Your task to perform on an android device: What's the price of the Vizio TV? Image 0: 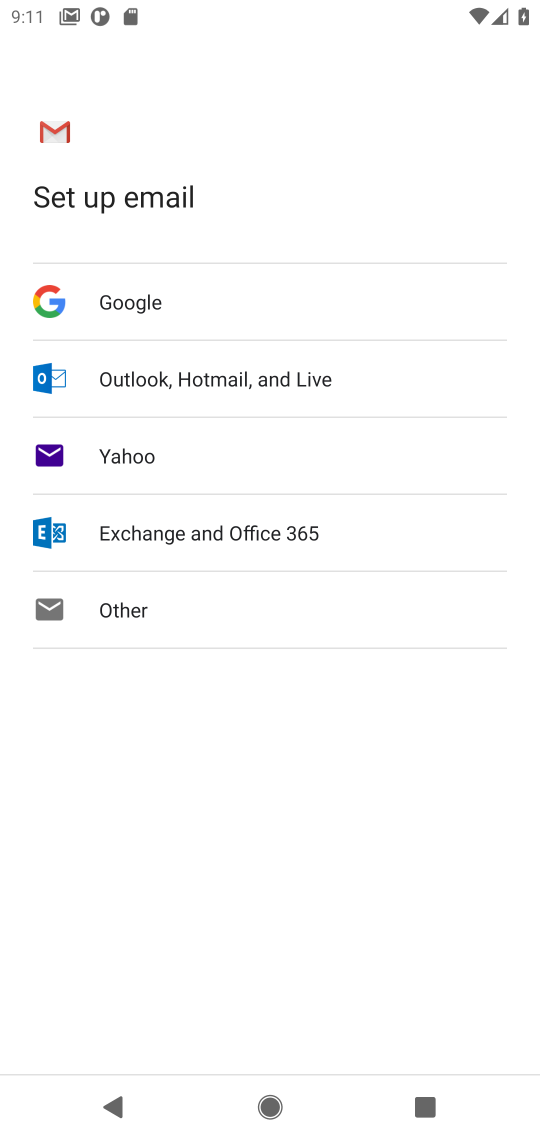
Step 0: press home button
Your task to perform on an android device: What's the price of the Vizio TV? Image 1: 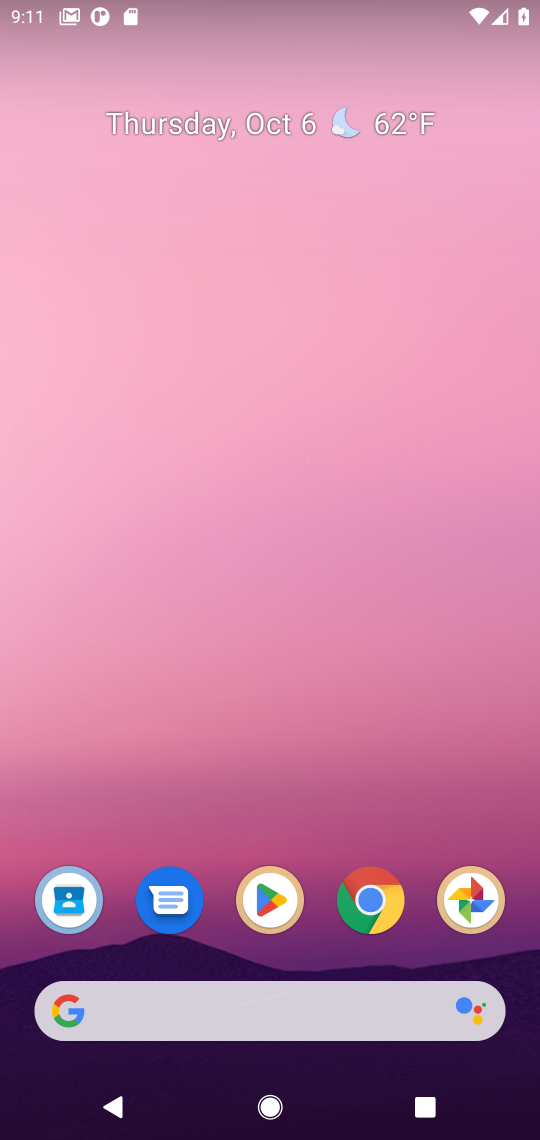
Step 1: click (305, 1013)
Your task to perform on an android device: What's the price of the Vizio TV? Image 2: 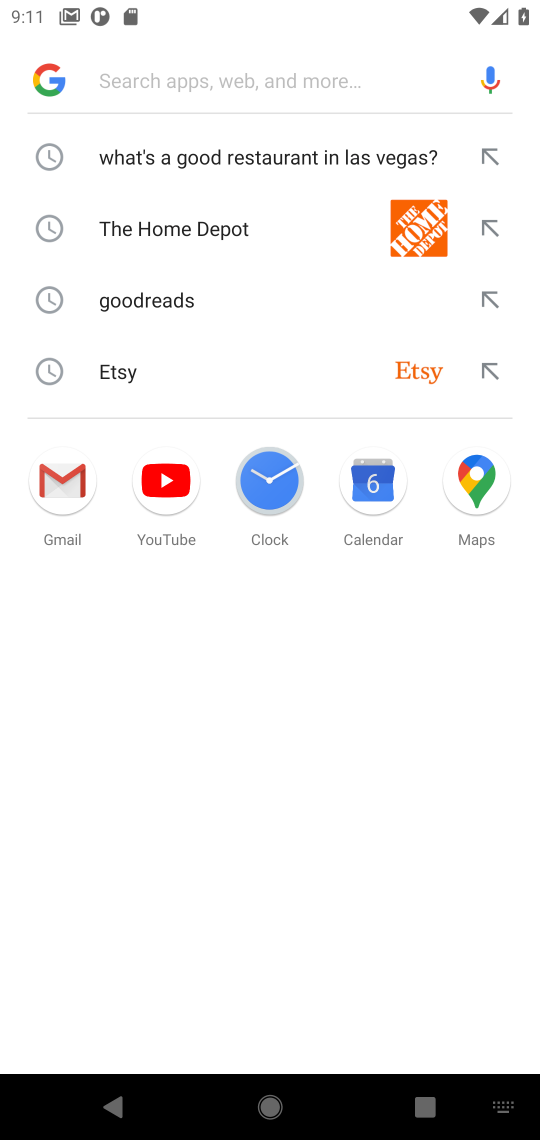
Step 2: type "What's the price of the Vizio TV?"
Your task to perform on an android device: What's the price of the Vizio TV? Image 3: 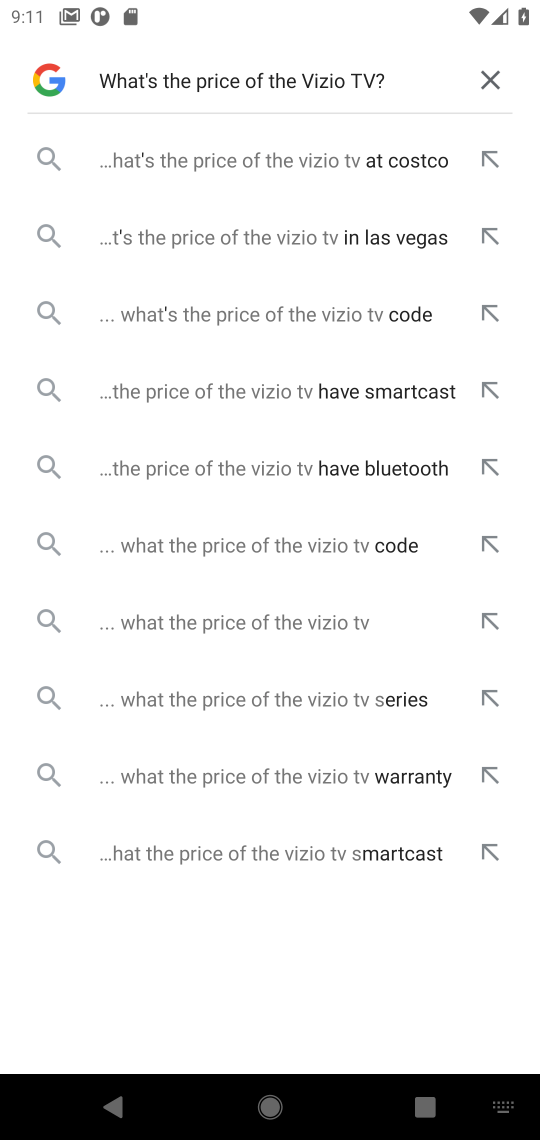
Step 3: press enter
Your task to perform on an android device: What's the price of the Vizio TV? Image 4: 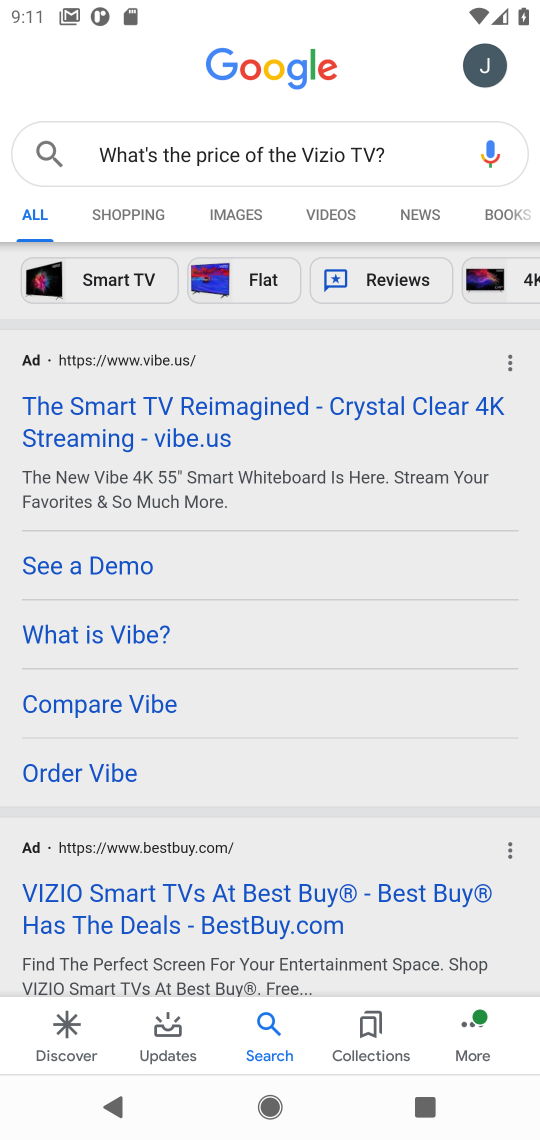
Step 4: drag from (401, 787) to (375, 501)
Your task to perform on an android device: What's the price of the Vizio TV? Image 5: 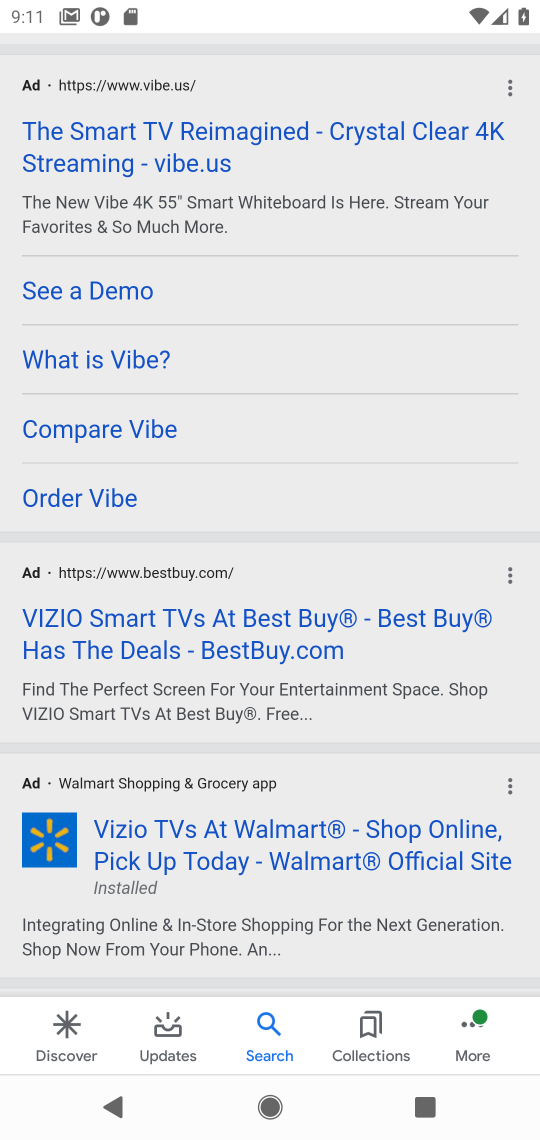
Step 5: click (279, 622)
Your task to perform on an android device: What's the price of the Vizio TV? Image 6: 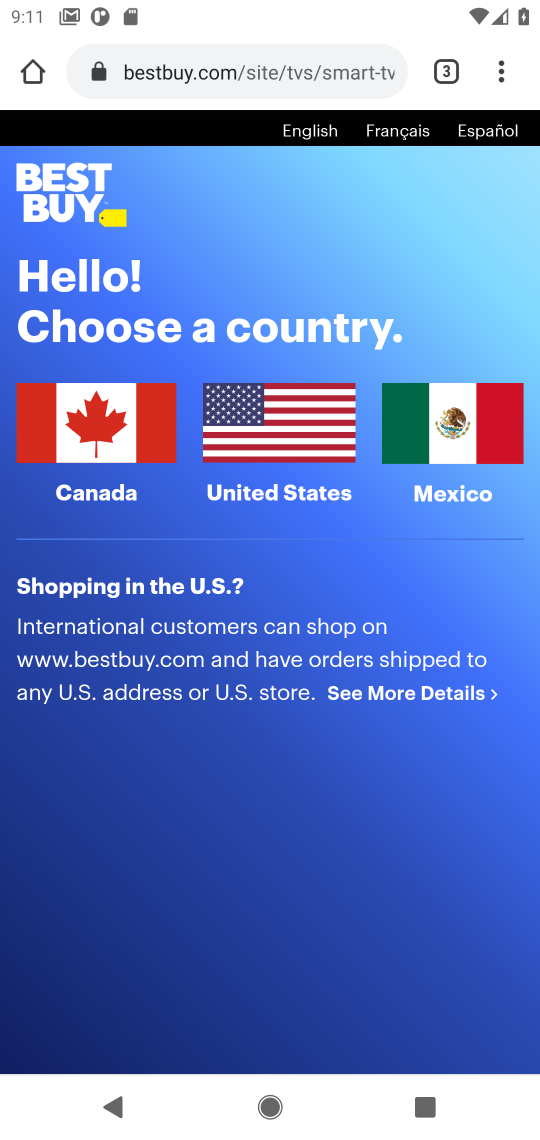
Step 6: click (85, 465)
Your task to perform on an android device: What's the price of the Vizio TV? Image 7: 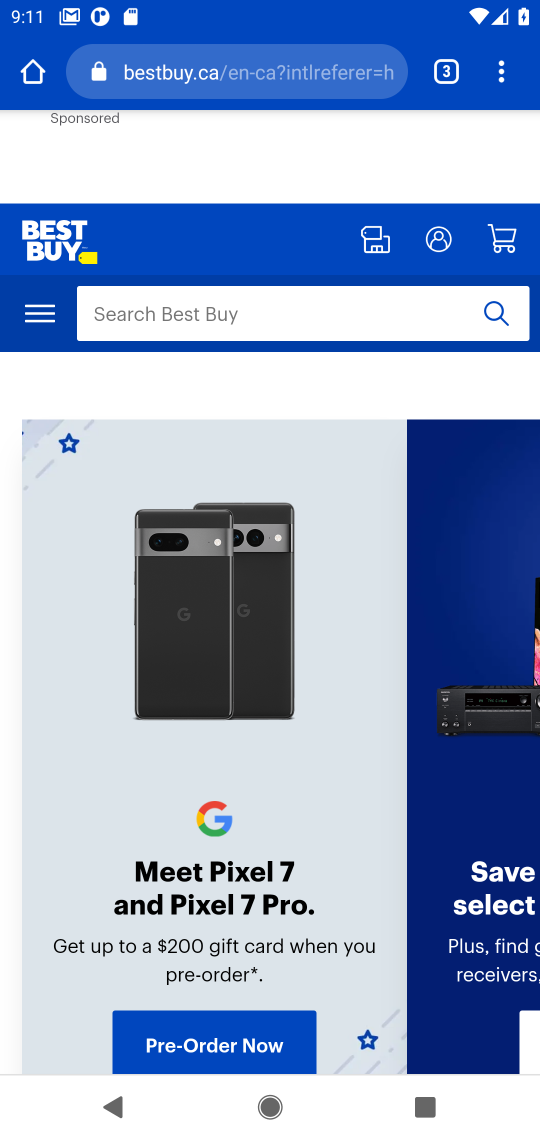
Step 7: task complete